Your task to perform on an android device: open chrome and create a bookmark for the current page Image 0: 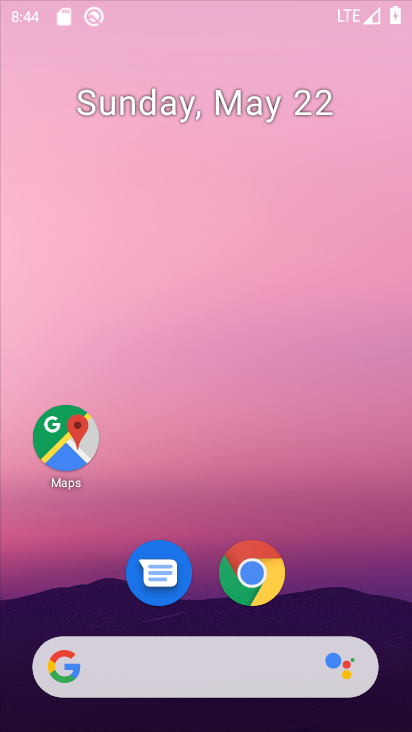
Step 0: drag from (203, 636) to (263, 65)
Your task to perform on an android device: open chrome and create a bookmark for the current page Image 1: 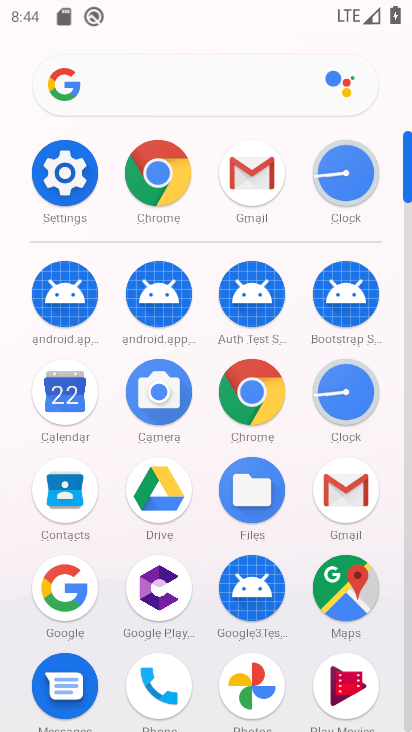
Step 1: click (244, 390)
Your task to perform on an android device: open chrome and create a bookmark for the current page Image 2: 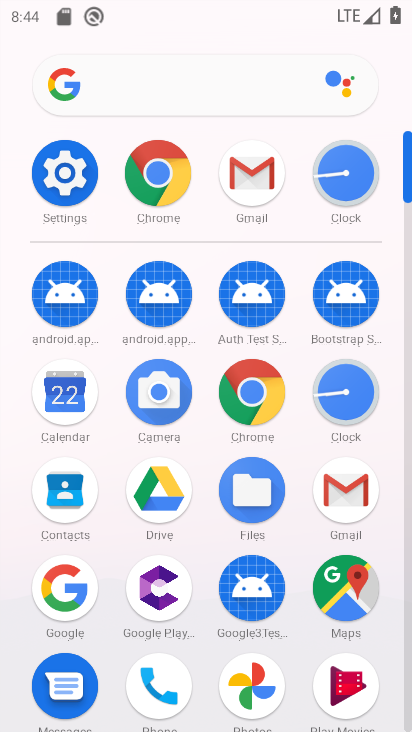
Step 2: click (244, 390)
Your task to perform on an android device: open chrome and create a bookmark for the current page Image 3: 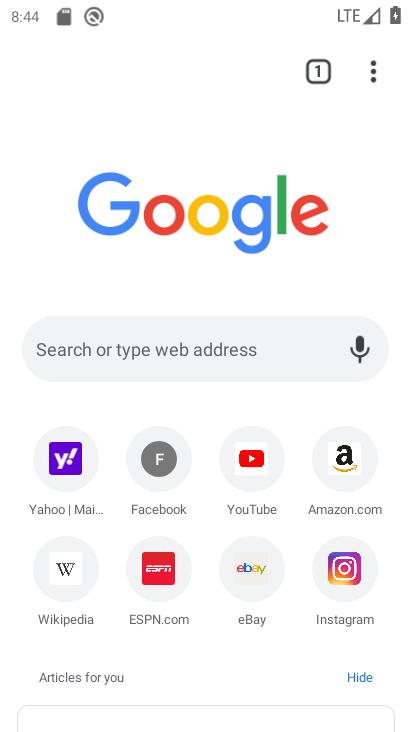
Step 3: click (374, 77)
Your task to perform on an android device: open chrome and create a bookmark for the current page Image 4: 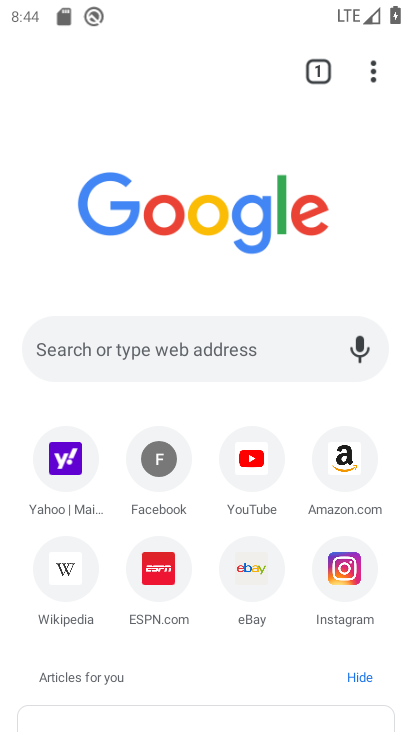
Step 4: click (361, 85)
Your task to perform on an android device: open chrome and create a bookmark for the current page Image 5: 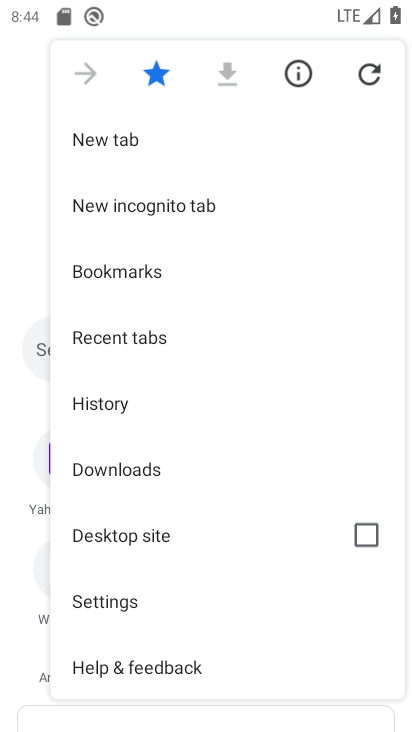
Step 5: task complete